Your task to perform on an android device: Go to notification settings Image 0: 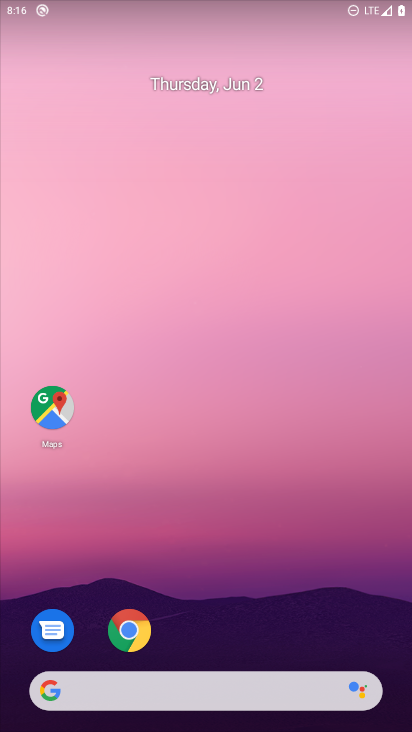
Step 0: drag from (131, 724) to (103, 25)
Your task to perform on an android device: Go to notification settings Image 1: 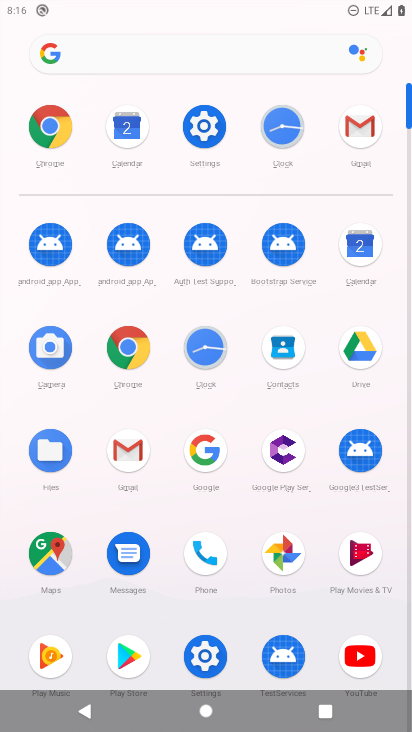
Step 1: click (213, 131)
Your task to perform on an android device: Go to notification settings Image 2: 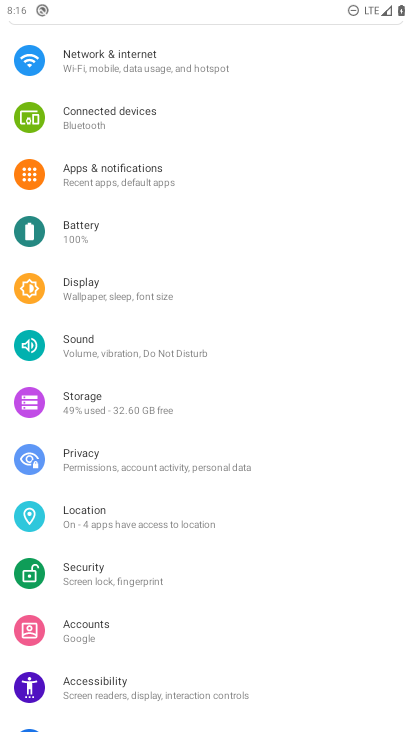
Step 2: click (127, 171)
Your task to perform on an android device: Go to notification settings Image 3: 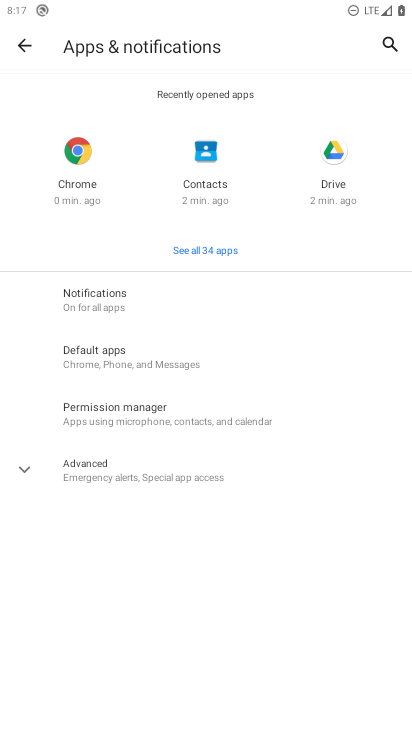
Step 3: click (128, 304)
Your task to perform on an android device: Go to notification settings Image 4: 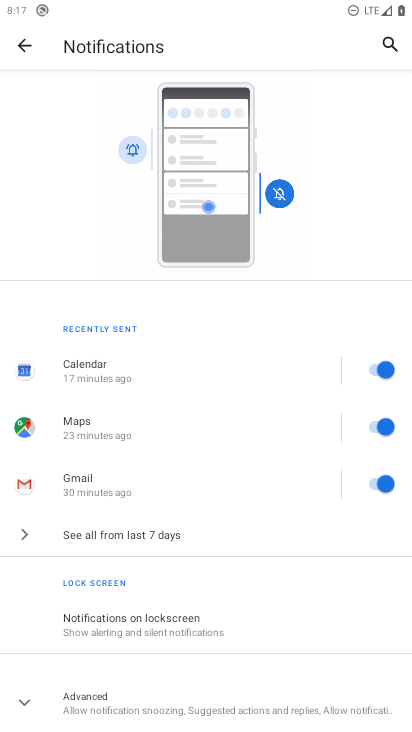
Step 4: drag from (263, 629) to (256, 317)
Your task to perform on an android device: Go to notification settings Image 5: 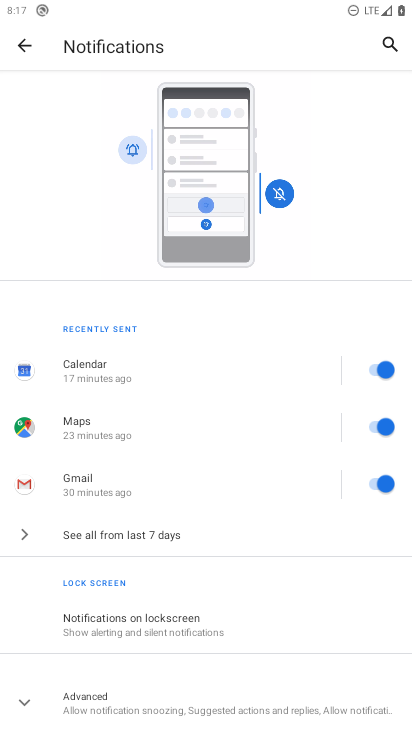
Step 5: click (154, 703)
Your task to perform on an android device: Go to notification settings Image 6: 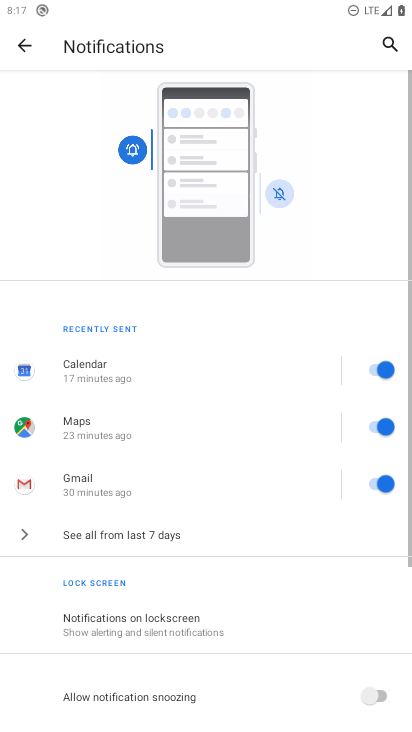
Step 6: task complete